Your task to perform on an android device: Open ESPN.com Image 0: 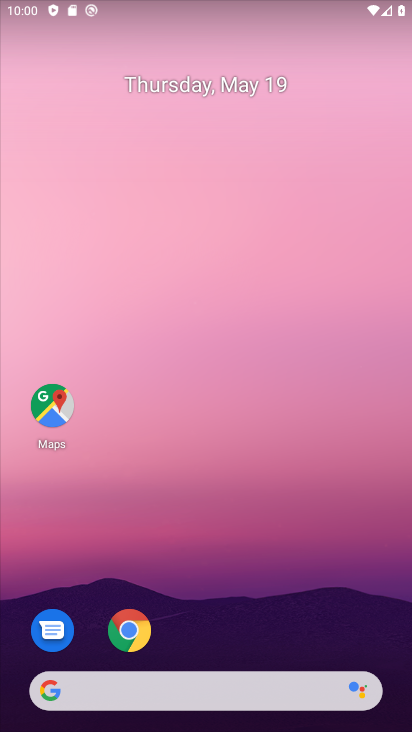
Step 0: drag from (331, 605) to (355, 65)
Your task to perform on an android device: Open ESPN.com Image 1: 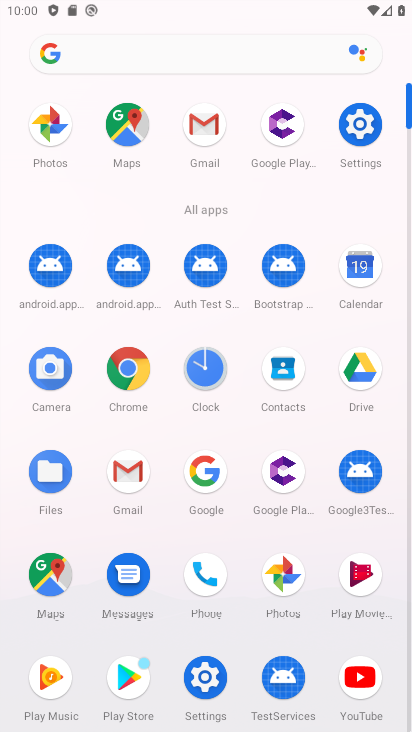
Step 1: drag from (230, 625) to (266, 322)
Your task to perform on an android device: Open ESPN.com Image 2: 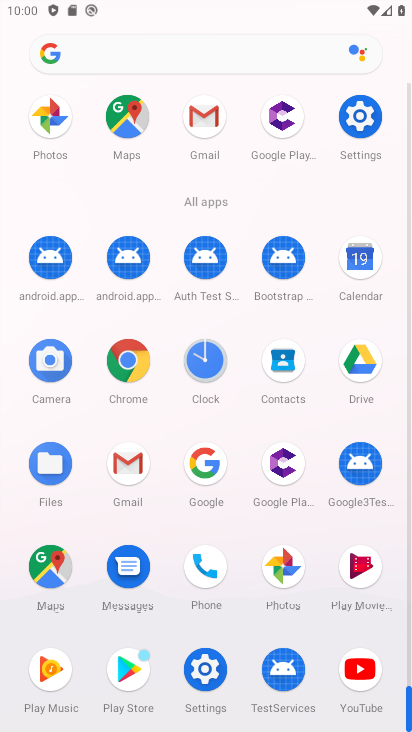
Step 2: click (117, 377)
Your task to perform on an android device: Open ESPN.com Image 3: 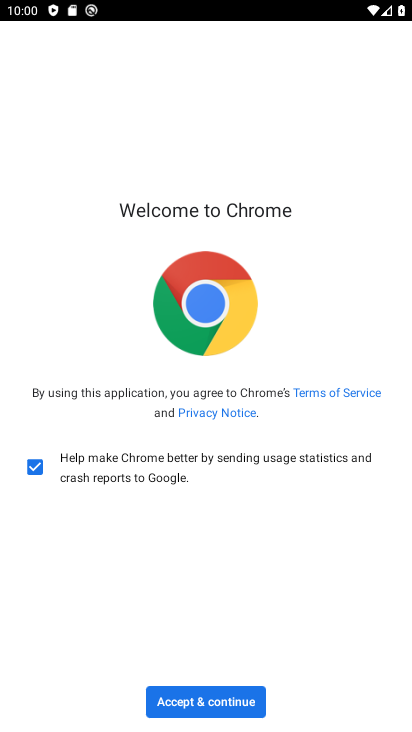
Step 3: click (203, 702)
Your task to perform on an android device: Open ESPN.com Image 4: 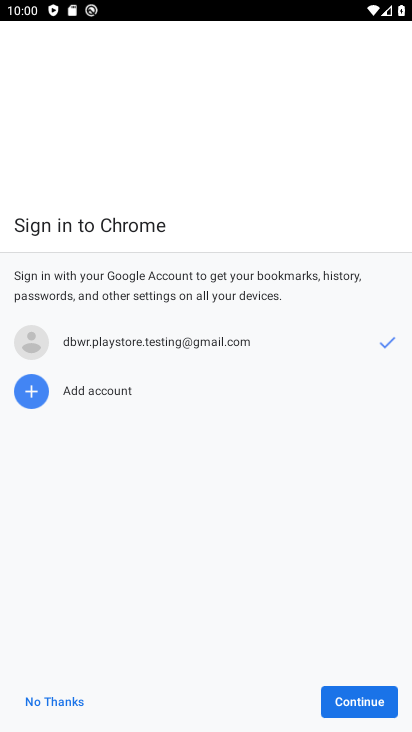
Step 4: click (381, 710)
Your task to perform on an android device: Open ESPN.com Image 5: 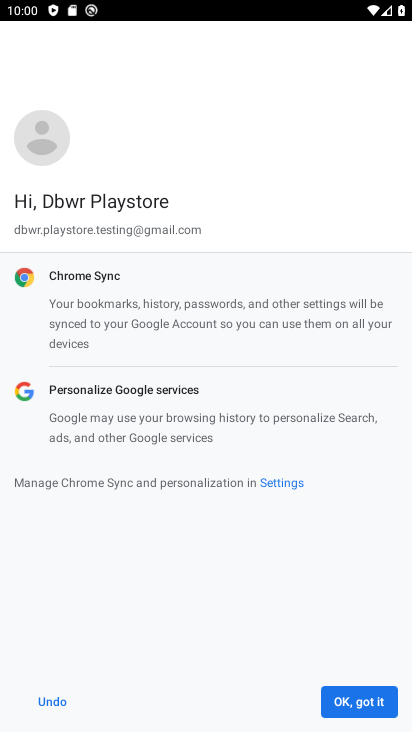
Step 5: click (379, 709)
Your task to perform on an android device: Open ESPN.com Image 6: 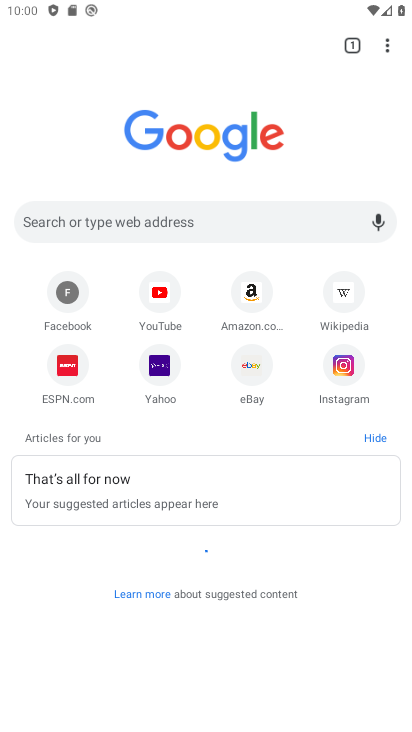
Step 6: click (200, 217)
Your task to perform on an android device: Open ESPN.com Image 7: 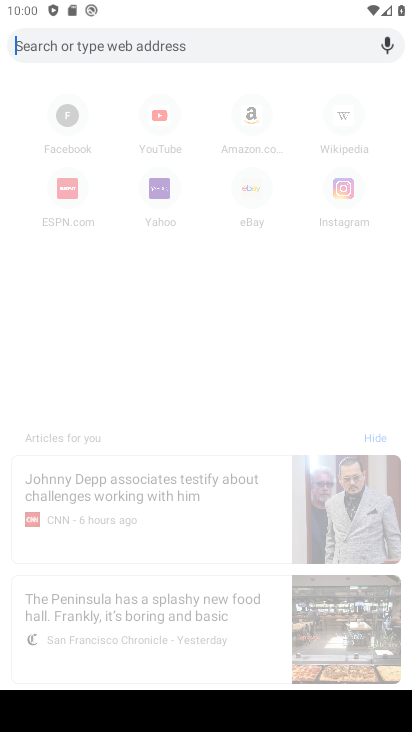
Step 7: type "espn.com"
Your task to perform on an android device: Open ESPN.com Image 8: 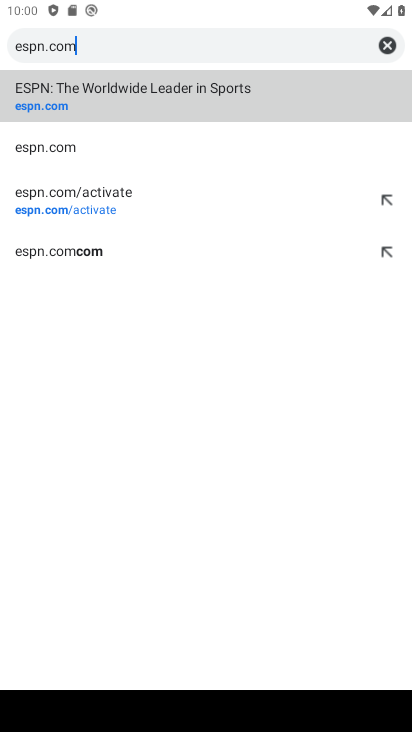
Step 8: click (143, 94)
Your task to perform on an android device: Open ESPN.com Image 9: 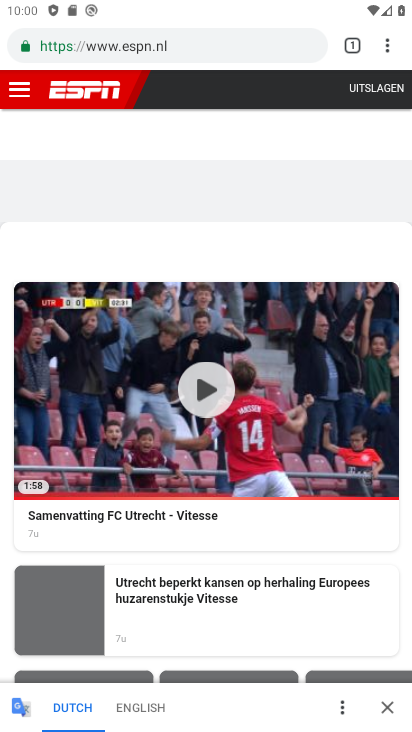
Step 9: task complete